Your task to perform on an android device: Go to calendar. Show me events next week Image 0: 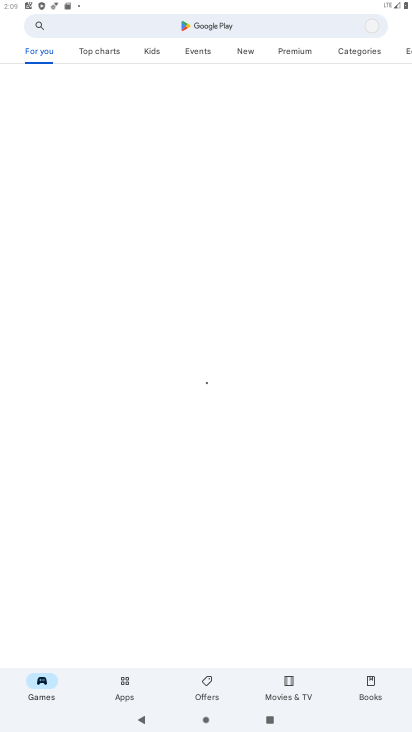
Step 0: press home button
Your task to perform on an android device: Go to calendar. Show me events next week Image 1: 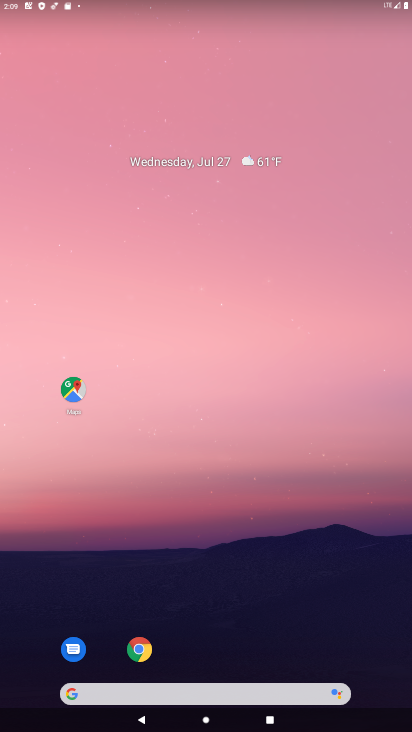
Step 1: drag from (177, 572) to (194, 38)
Your task to perform on an android device: Go to calendar. Show me events next week Image 2: 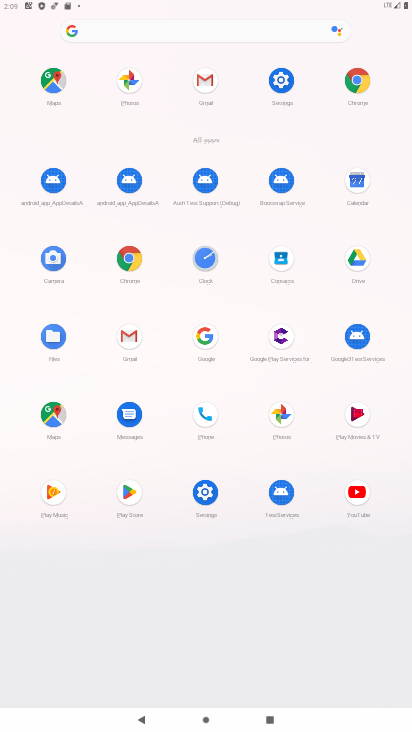
Step 2: click (356, 183)
Your task to perform on an android device: Go to calendar. Show me events next week Image 3: 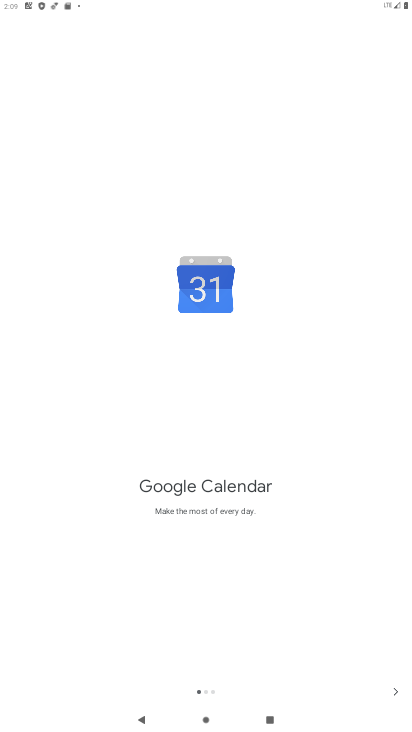
Step 3: click (396, 694)
Your task to perform on an android device: Go to calendar. Show me events next week Image 4: 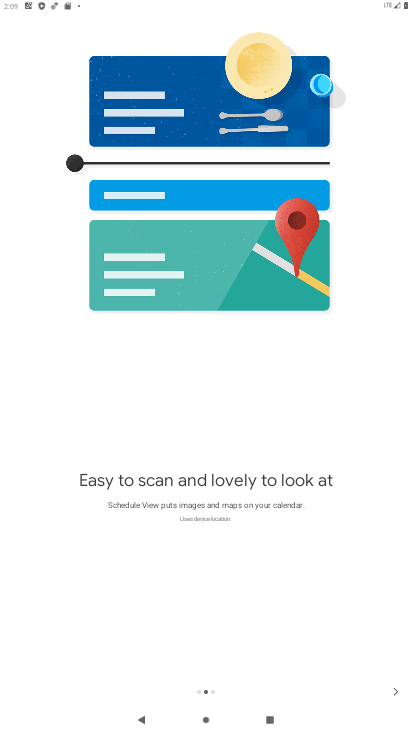
Step 4: click (396, 694)
Your task to perform on an android device: Go to calendar. Show me events next week Image 5: 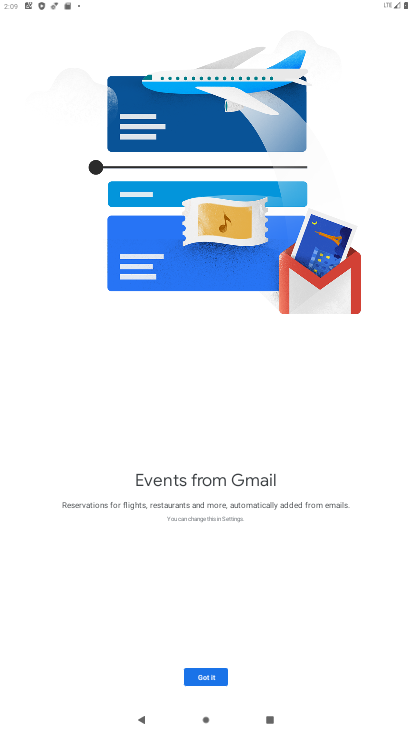
Step 5: click (199, 674)
Your task to perform on an android device: Go to calendar. Show me events next week Image 6: 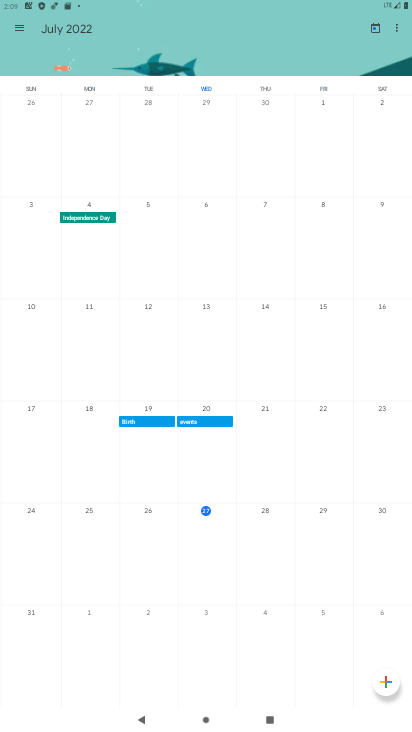
Step 6: click (22, 31)
Your task to perform on an android device: Go to calendar. Show me events next week Image 7: 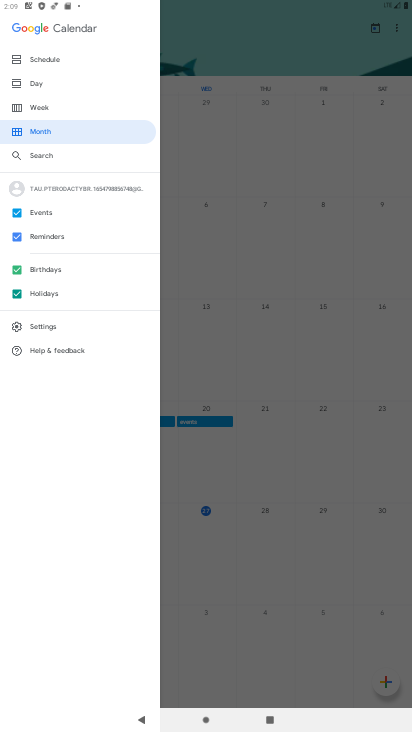
Step 7: click (41, 99)
Your task to perform on an android device: Go to calendar. Show me events next week Image 8: 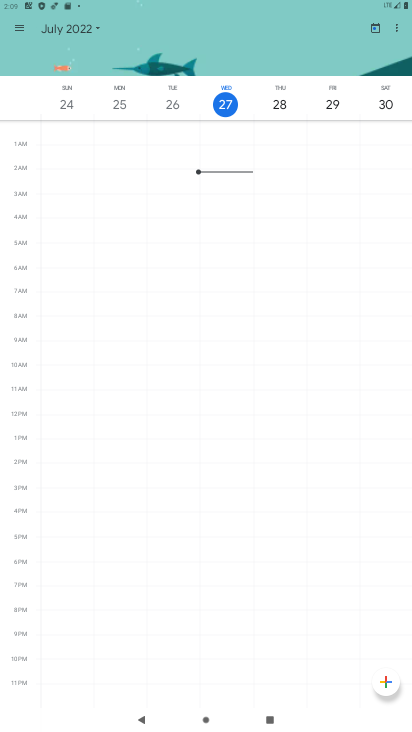
Step 8: click (61, 34)
Your task to perform on an android device: Go to calendar. Show me events next week Image 9: 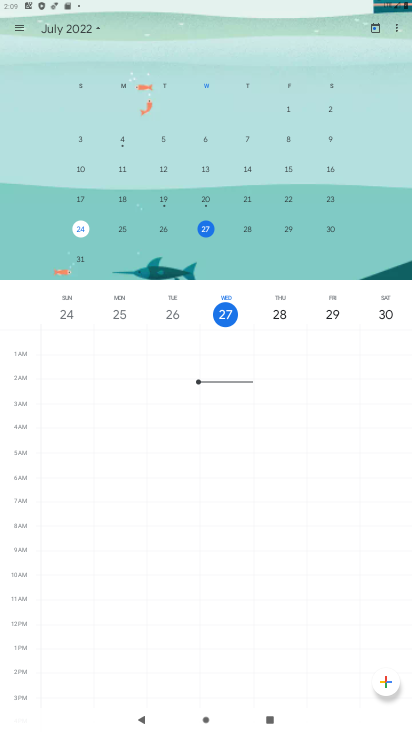
Step 9: drag from (325, 152) to (66, 179)
Your task to perform on an android device: Go to calendar. Show me events next week Image 10: 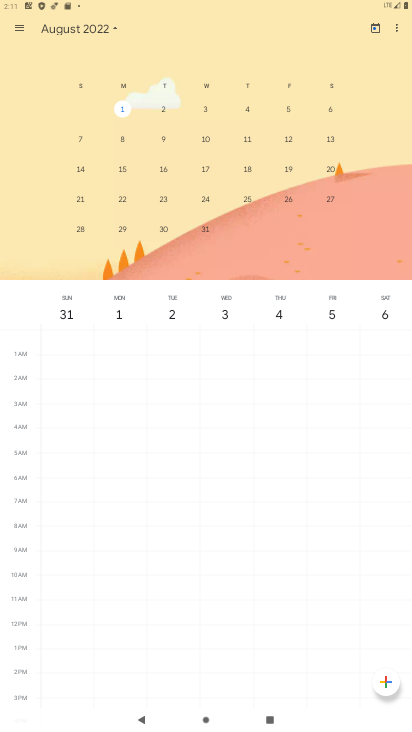
Step 10: click (16, 29)
Your task to perform on an android device: Go to calendar. Show me events next week Image 11: 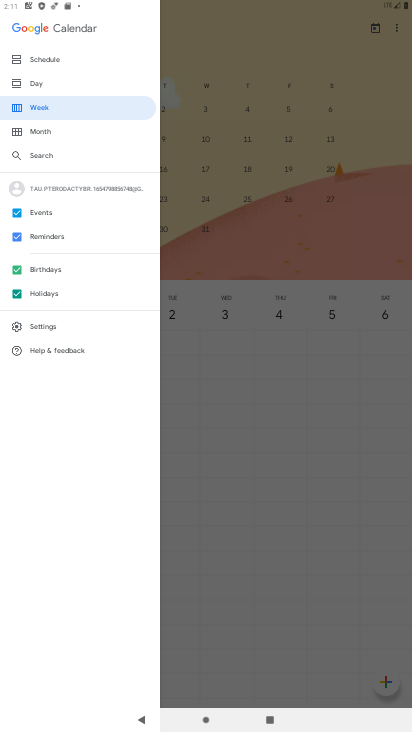
Step 11: click (195, 122)
Your task to perform on an android device: Go to calendar. Show me events next week Image 12: 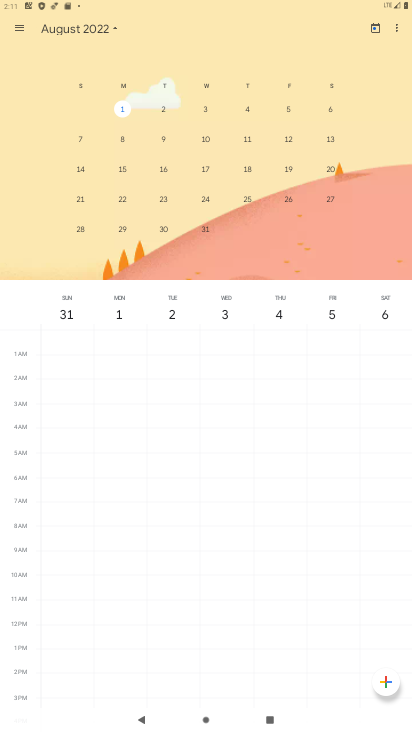
Step 12: click (63, 183)
Your task to perform on an android device: Go to calendar. Show me events next week Image 13: 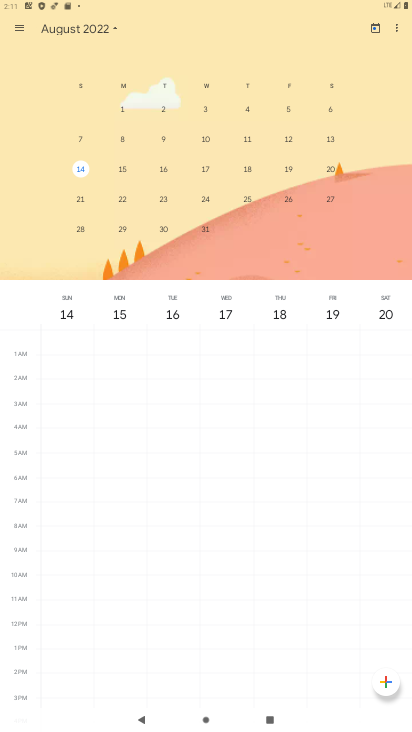
Step 13: drag from (197, 145) to (382, 132)
Your task to perform on an android device: Go to calendar. Show me events next week Image 14: 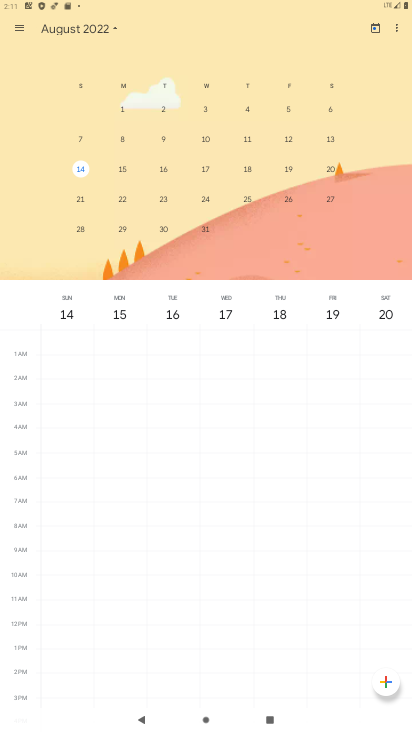
Step 14: drag from (100, 141) to (409, 124)
Your task to perform on an android device: Go to calendar. Show me events next week Image 15: 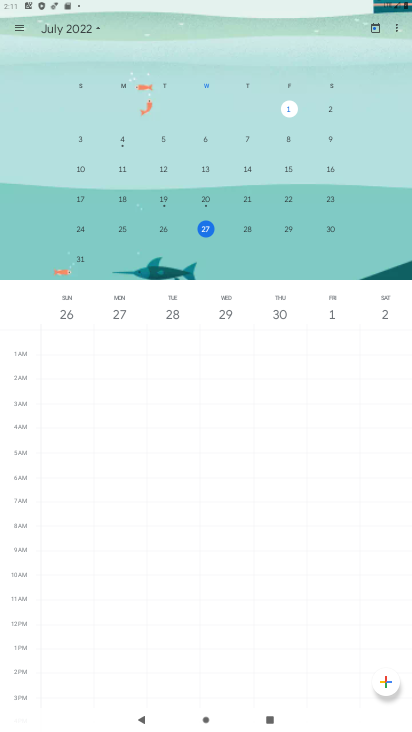
Step 15: drag from (270, 174) to (68, 184)
Your task to perform on an android device: Go to calendar. Show me events next week Image 16: 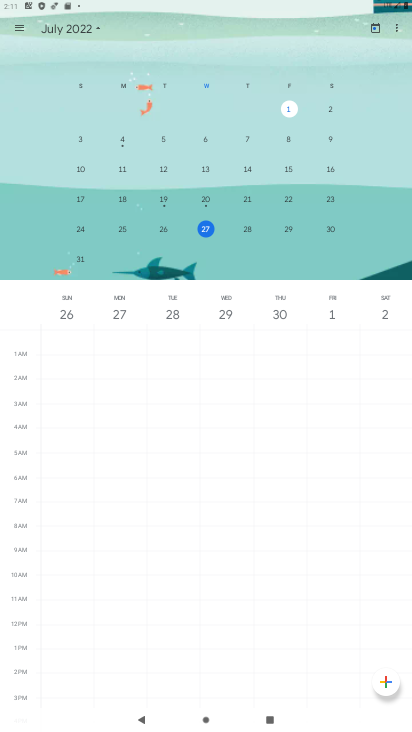
Step 16: drag from (307, 148) to (63, 169)
Your task to perform on an android device: Go to calendar. Show me events next week Image 17: 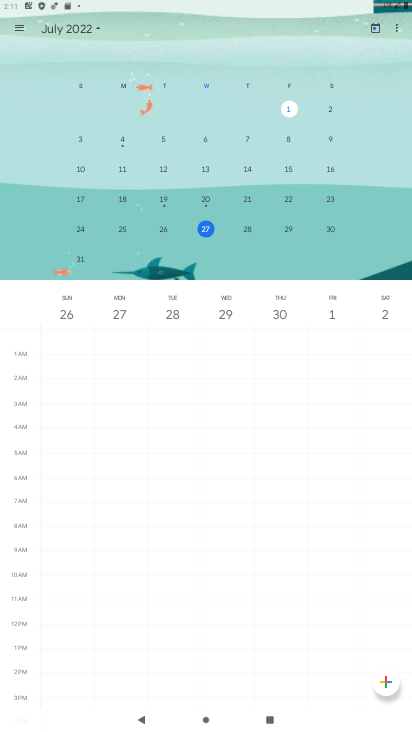
Step 17: drag from (323, 141) to (205, 172)
Your task to perform on an android device: Go to calendar. Show me events next week Image 18: 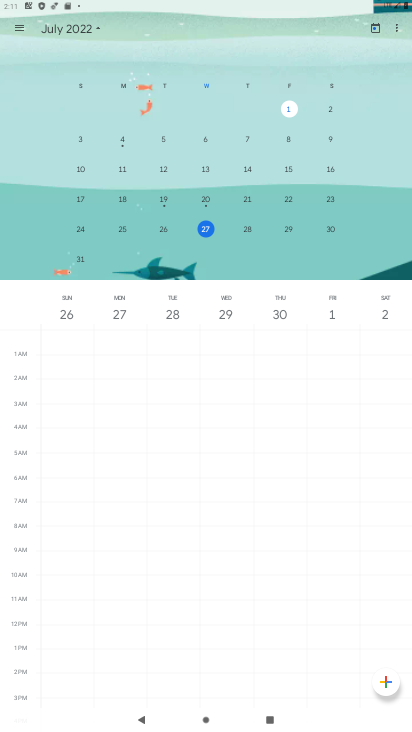
Step 18: drag from (243, 164) to (35, 211)
Your task to perform on an android device: Go to calendar. Show me events next week Image 19: 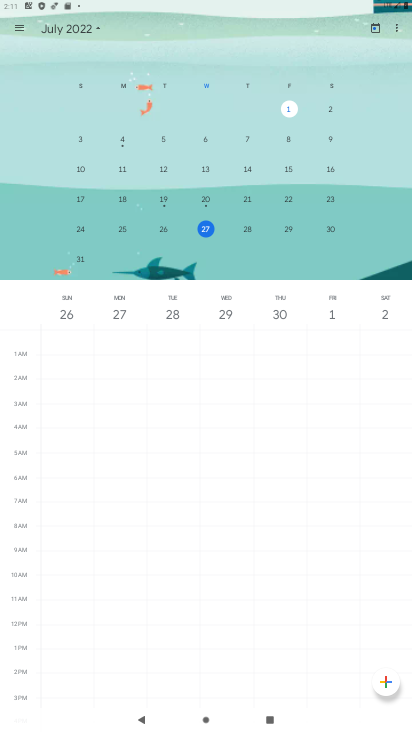
Step 19: drag from (338, 168) to (48, 183)
Your task to perform on an android device: Go to calendar. Show me events next week Image 20: 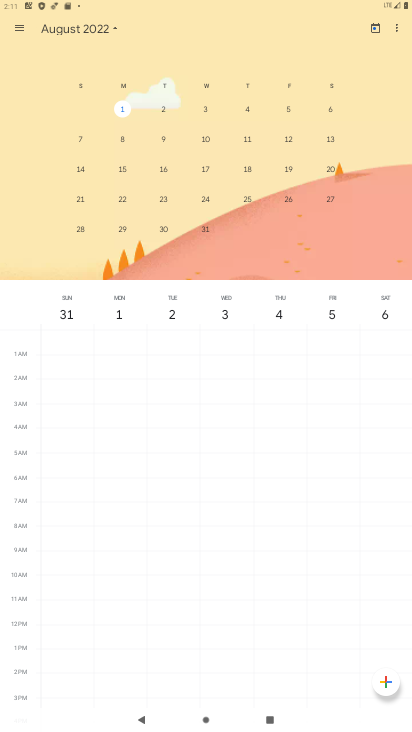
Step 20: click (124, 110)
Your task to perform on an android device: Go to calendar. Show me events next week Image 21: 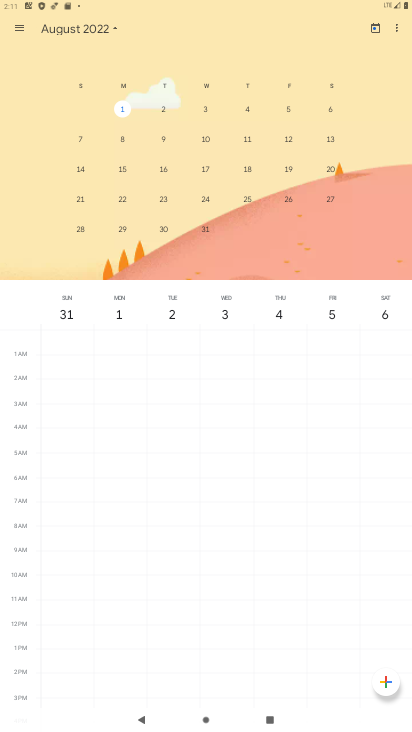
Step 21: click (124, 110)
Your task to perform on an android device: Go to calendar. Show me events next week Image 22: 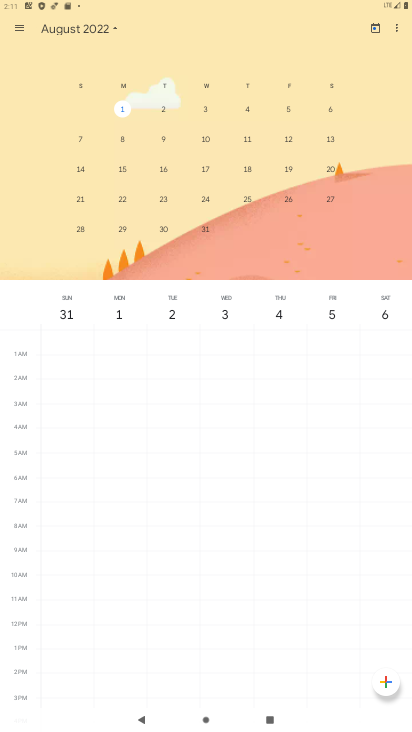
Step 22: task complete